Your task to perform on an android device: Open Google Chrome Image 0: 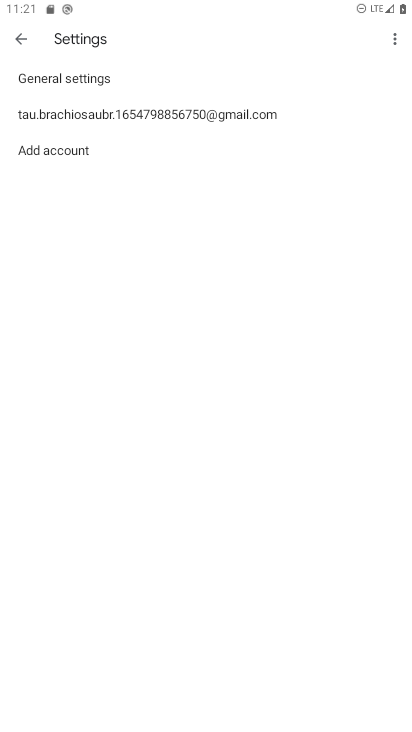
Step 0: press home button
Your task to perform on an android device: Open Google Chrome Image 1: 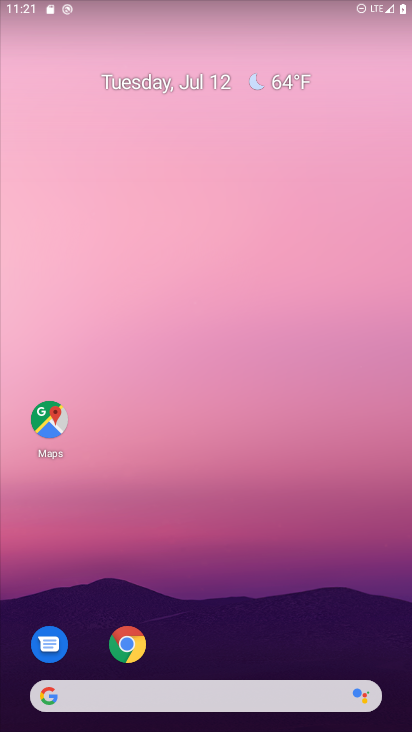
Step 1: click (147, 643)
Your task to perform on an android device: Open Google Chrome Image 2: 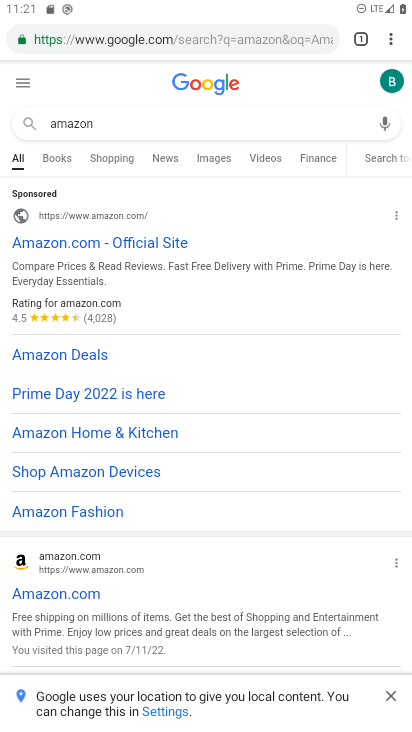
Step 2: click (384, 34)
Your task to perform on an android device: Open Google Chrome Image 3: 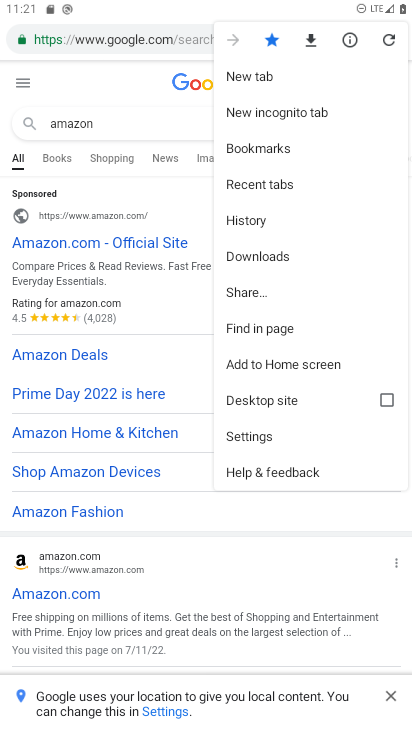
Step 3: task complete